Your task to perform on an android device: What is the recent news? Image 0: 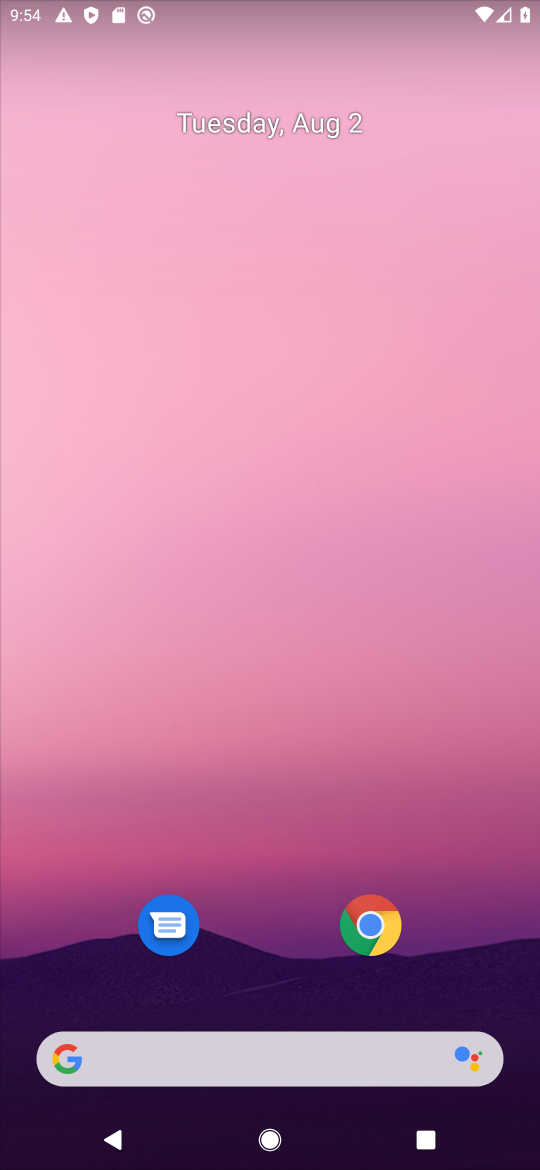
Step 0: drag from (496, 963) to (398, 238)
Your task to perform on an android device: What is the recent news? Image 1: 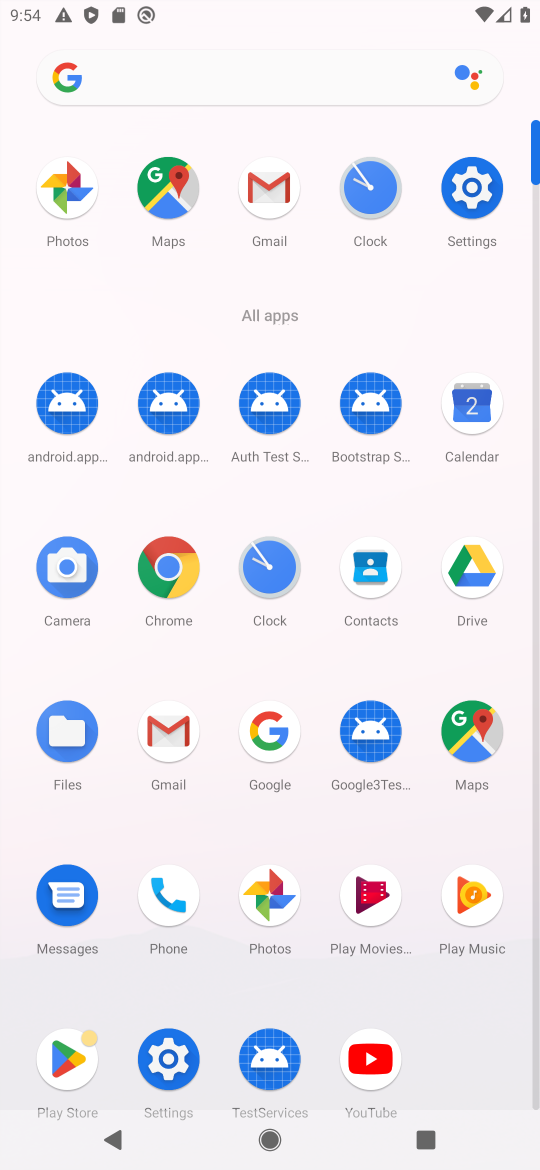
Step 1: click (164, 572)
Your task to perform on an android device: What is the recent news? Image 2: 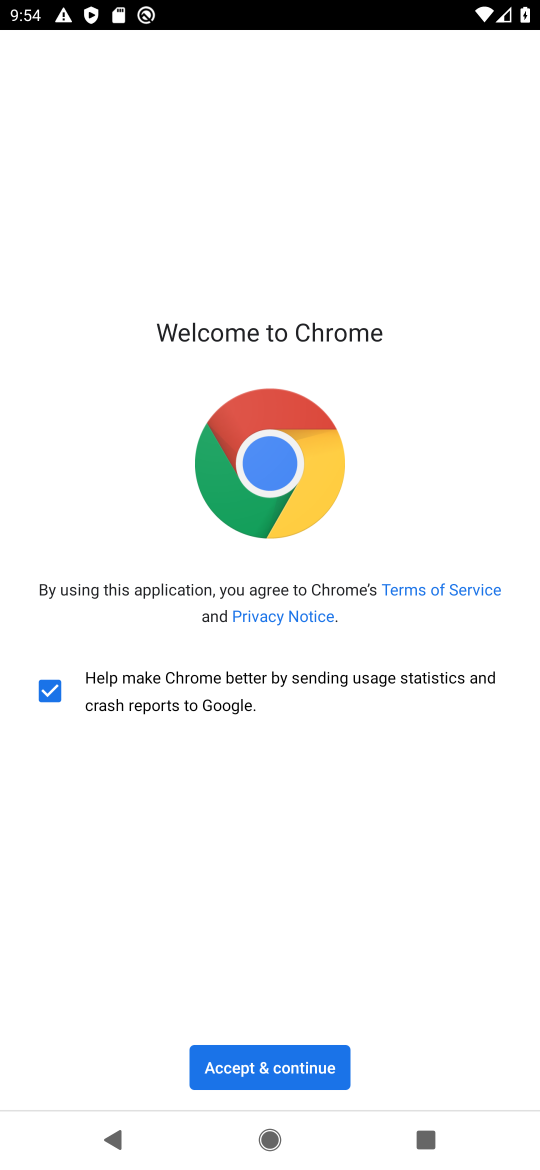
Step 2: click (264, 1067)
Your task to perform on an android device: What is the recent news? Image 3: 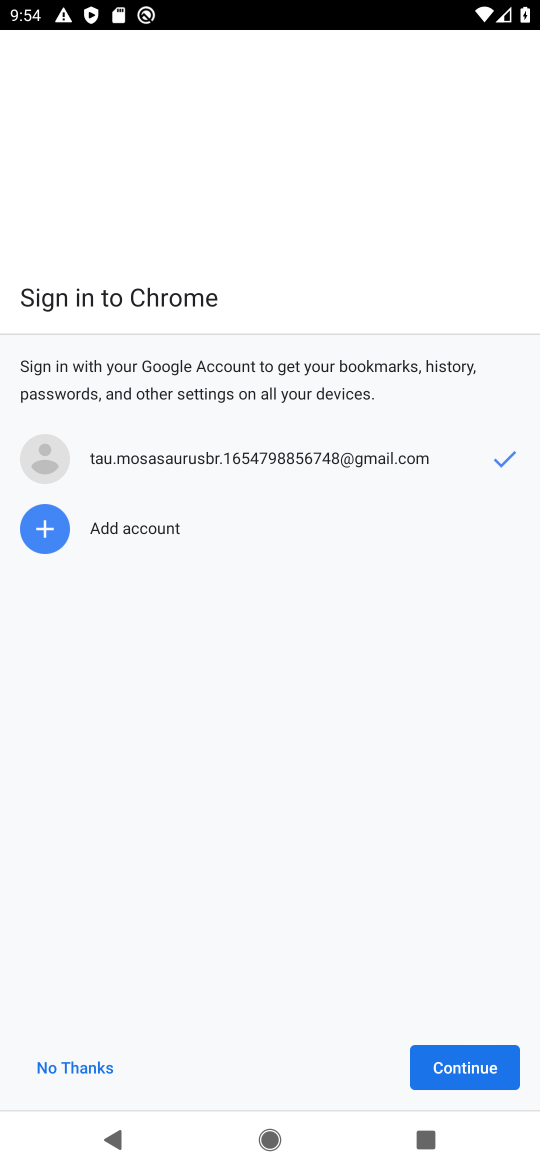
Step 3: click (435, 1065)
Your task to perform on an android device: What is the recent news? Image 4: 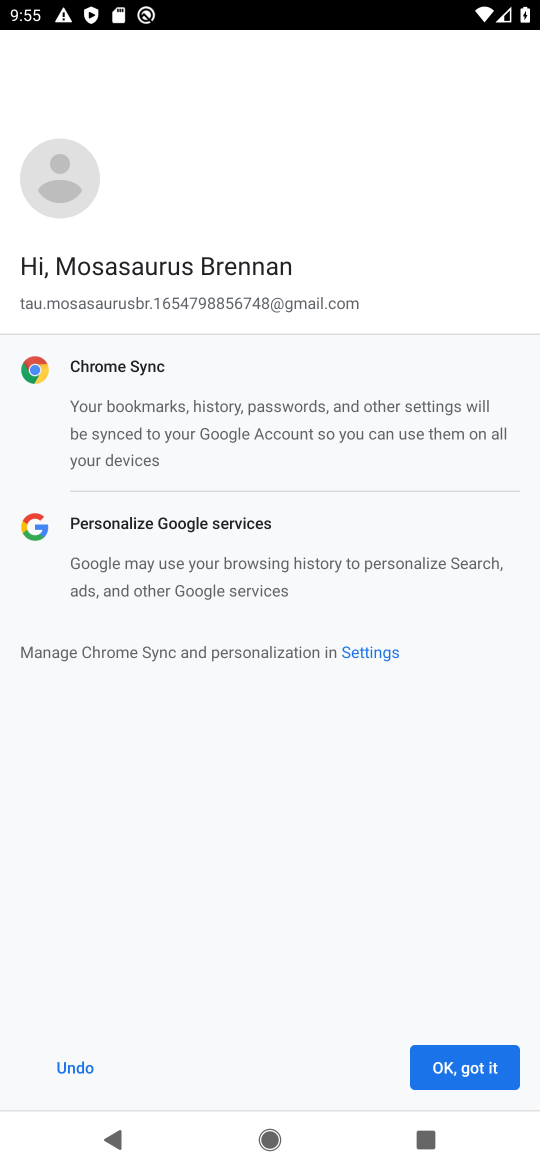
Step 4: click (469, 1053)
Your task to perform on an android device: What is the recent news? Image 5: 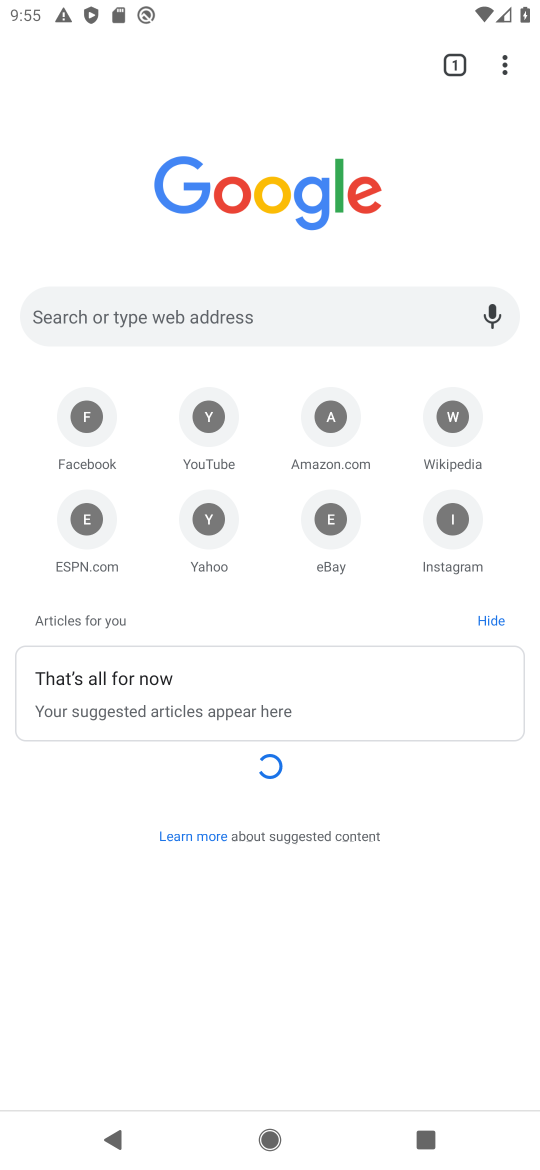
Step 5: click (398, 311)
Your task to perform on an android device: What is the recent news? Image 6: 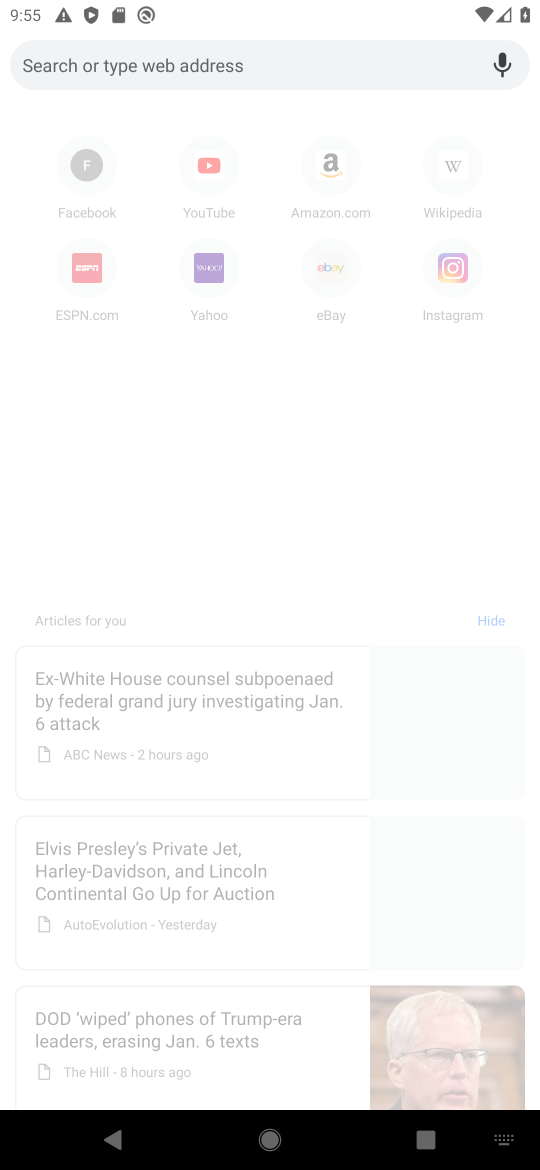
Step 6: type "What is the recent news?"
Your task to perform on an android device: What is the recent news? Image 7: 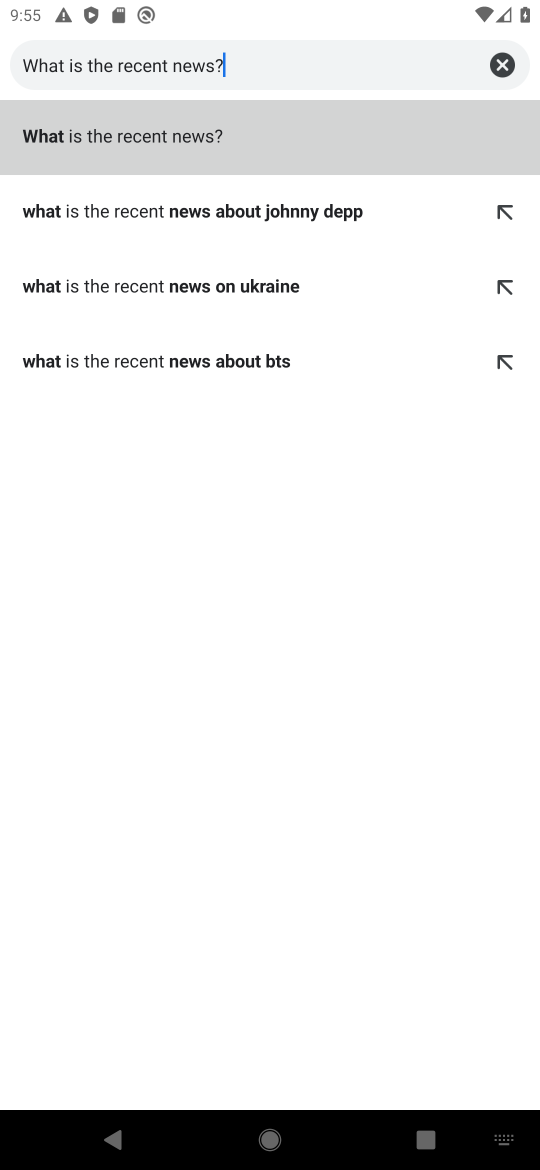
Step 7: click (200, 147)
Your task to perform on an android device: What is the recent news? Image 8: 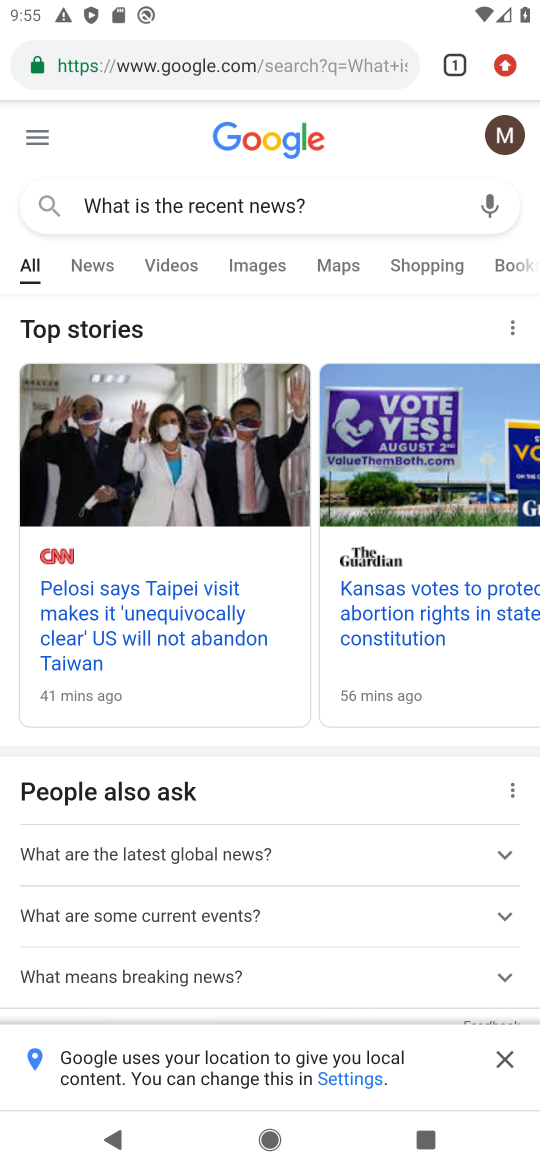
Step 8: task complete